Your task to perform on an android device: What's on my calendar tomorrow? Image 0: 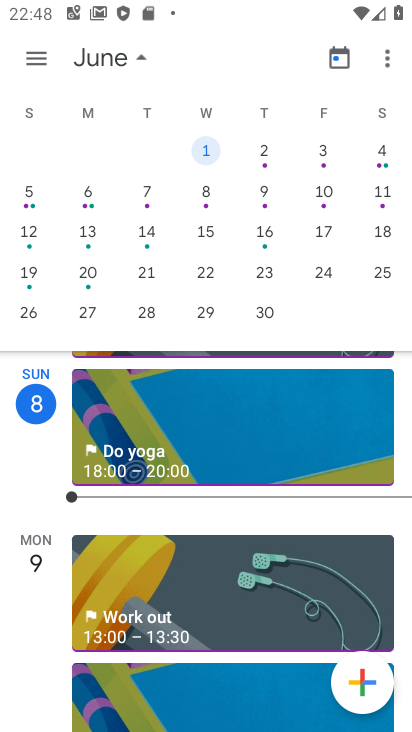
Step 0: drag from (58, 285) to (316, 492)
Your task to perform on an android device: What's on my calendar tomorrow? Image 1: 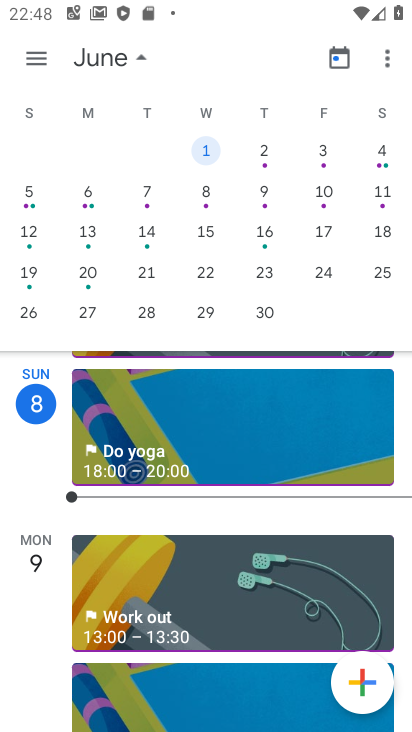
Step 1: drag from (80, 174) to (392, 270)
Your task to perform on an android device: What's on my calendar tomorrow? Image 2: 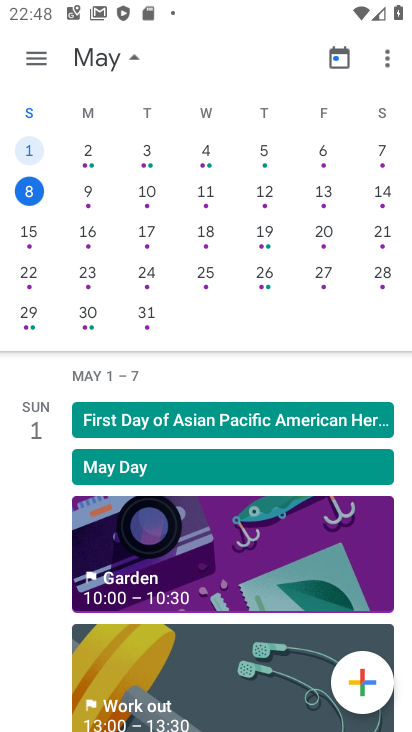
Step 2: click (89, 199)
Your task to perform on an android device: What's on my calendar tomorrow? Image 3: 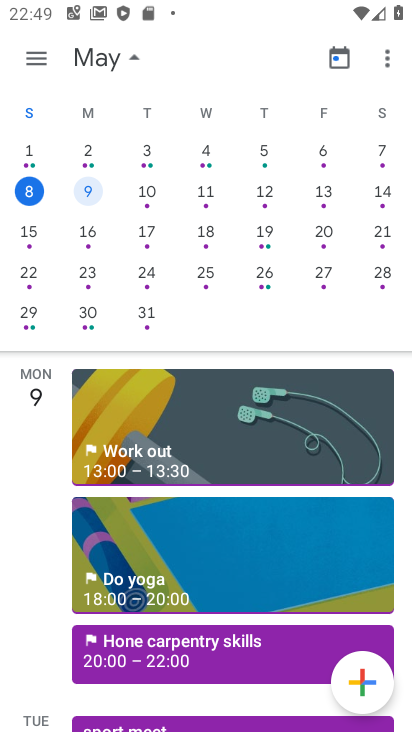
Step 3: task complete